Your task to perform on an android device: Go to network settings Image 0: 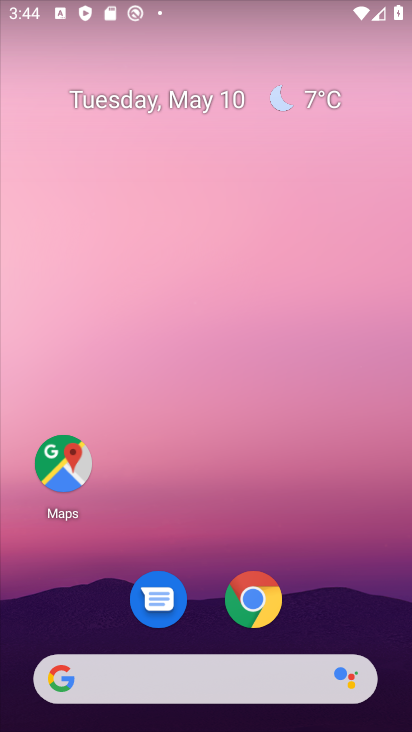
Step 0: drag from (214, 633) to (398, 299)
Your task to perform on an android device: Go to network settings Image 1: 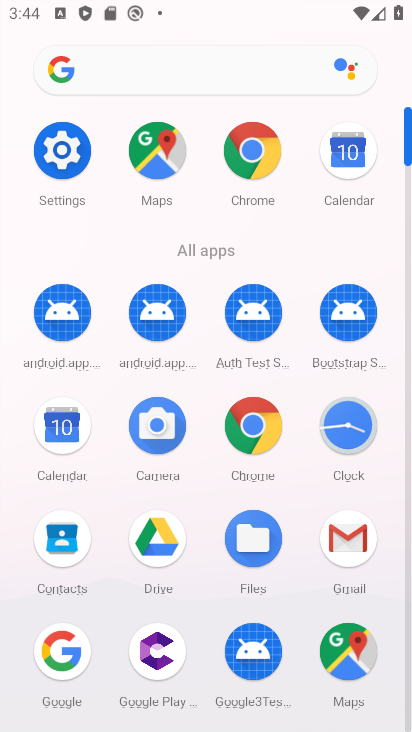
Step 1: click (66, 166)
Your task to perform on an android device: Go to network settings Image 2: 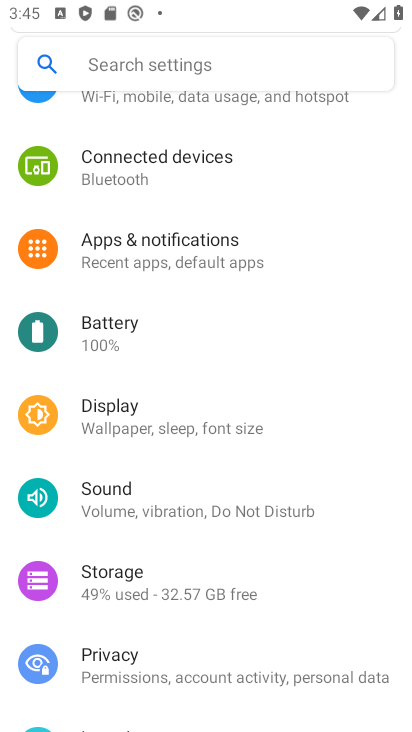
Step 2: drag from (165, 234) to (198, 549)
Your task to perform on an android device: Go to network settings Image 3: 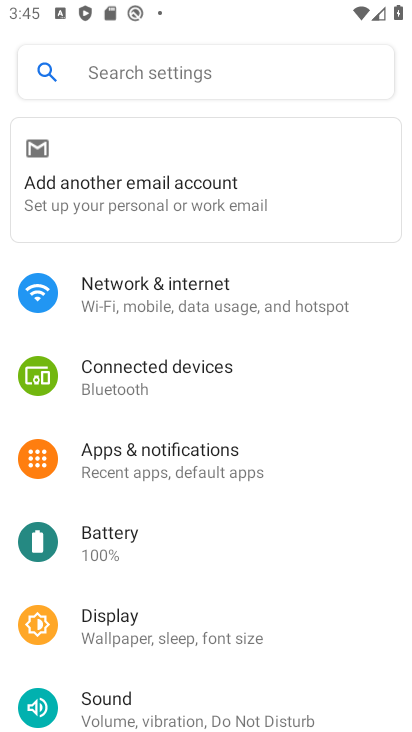
Step 3: click (216, 327)
Your task to perform on an android device: Go to network settings Image 4: 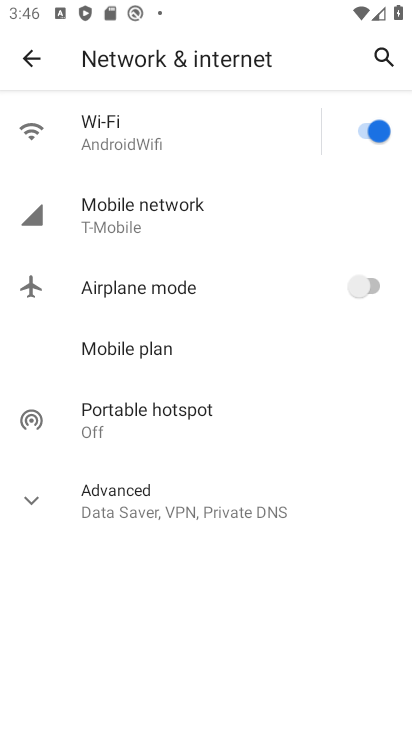
Step 4: click (274, 221)
Your task to perform on an android device: Go to network settings Image 5: 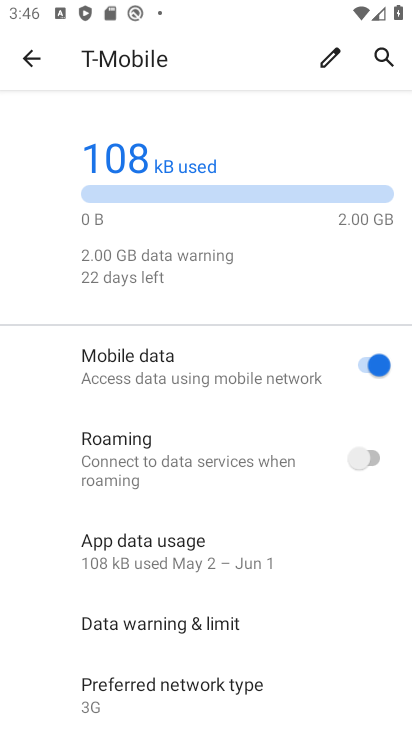
Step 5: drag from (180, 625) to (333, 246)
Your task to perform on an android device: Go to network settings Image 6: 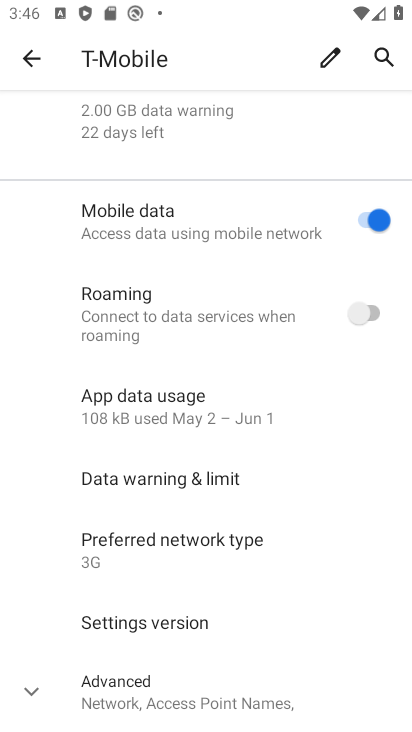
Step 6: click (172, 679)
Your task to perform on an android device: Go to network settings Image 7: 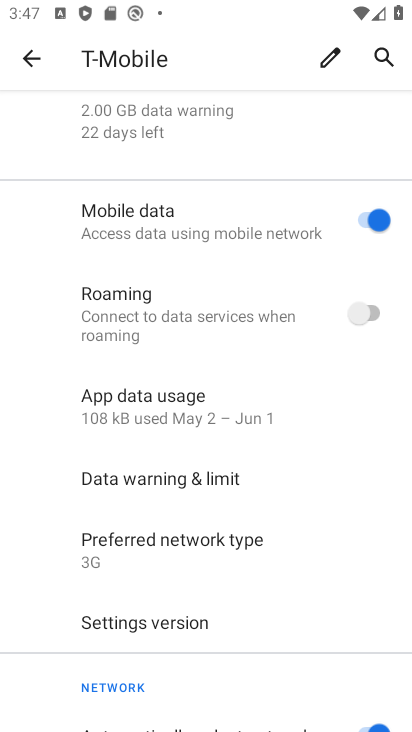
Step 7: task complete